Your task to perform on an android device: Open CNN.com Image 0: 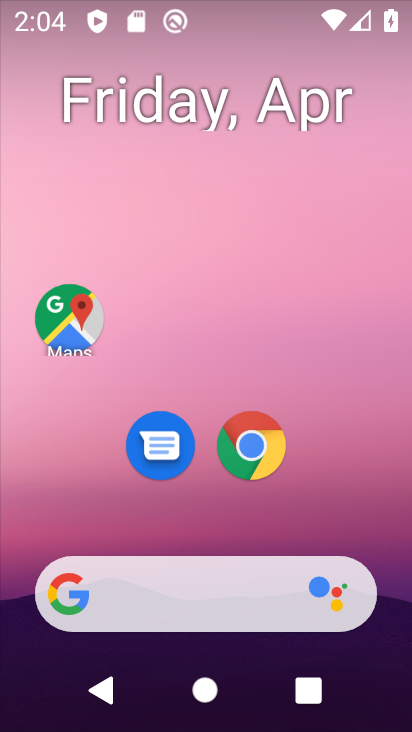
Step 0: click (246, 448)
Your task to perform on an android device: Open CNN.com Image 1: 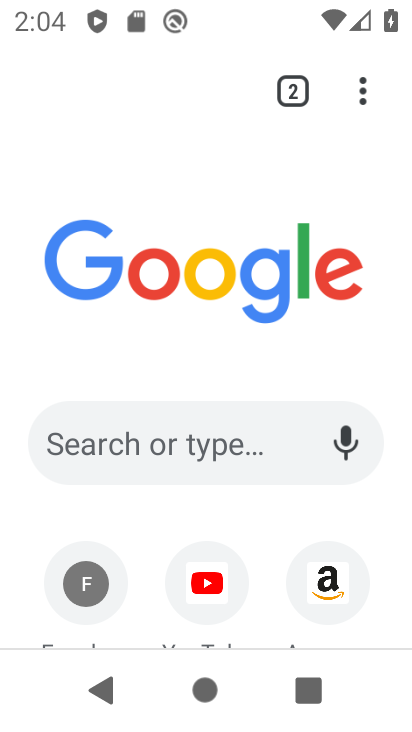
Step 1: click (226, 447)
Your task to perform on an android device: Open CNN.com Image 2: 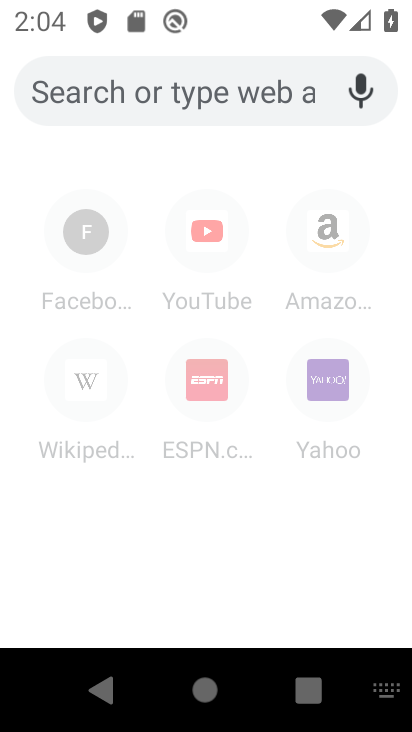
Step 2: click (225, 97)
Your task to perform on an android device: Open CNN.com Image 3: 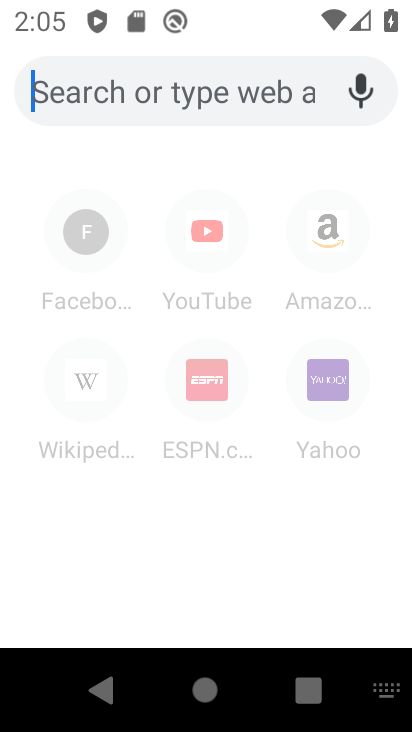
Step 3: type "CNN.com"
Your task to perform on an android device: Open CNN.com Image 4: 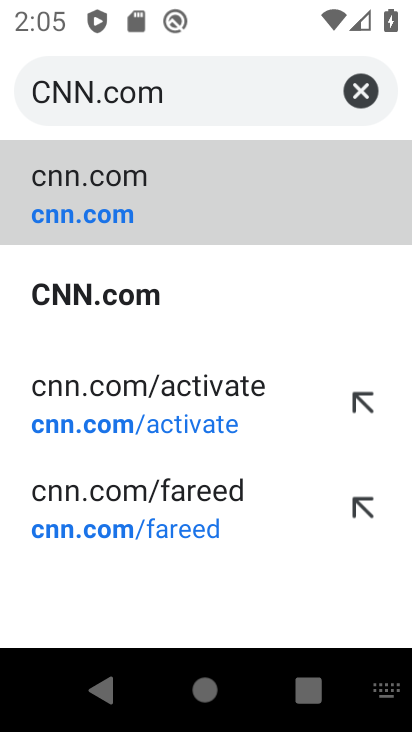
Step 4: click (123, 289)
Your task to perform on an android device: Open CNN.com Image 5: 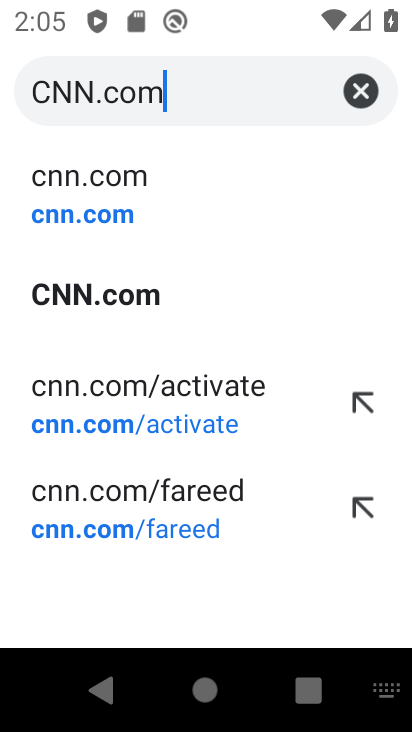
Step 5: click (131, 297)
Your task to perform on an android device: Open CNN.com Image 6: 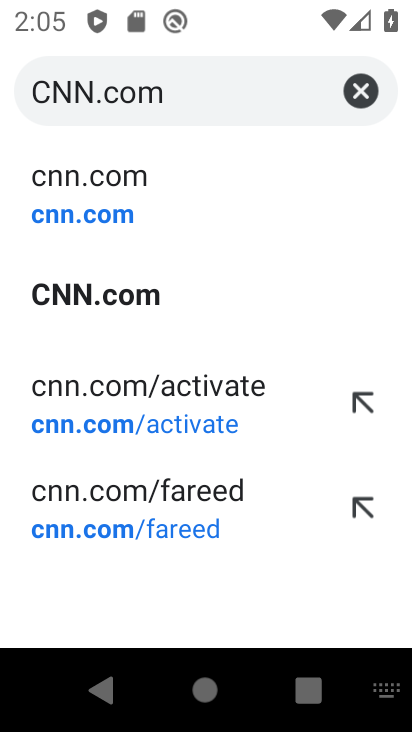
Step 6: click (112, 215)
Your task to perform on an android device: Open CNN.com Image 7: 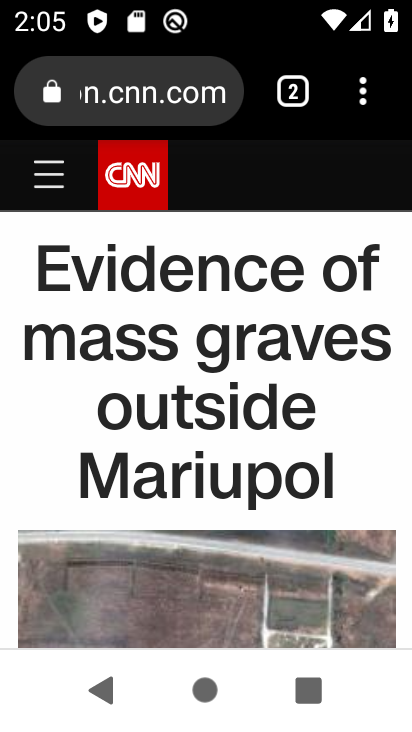
Step 7: task complete